Your task to perform on an android device: show emergency info Image 0: 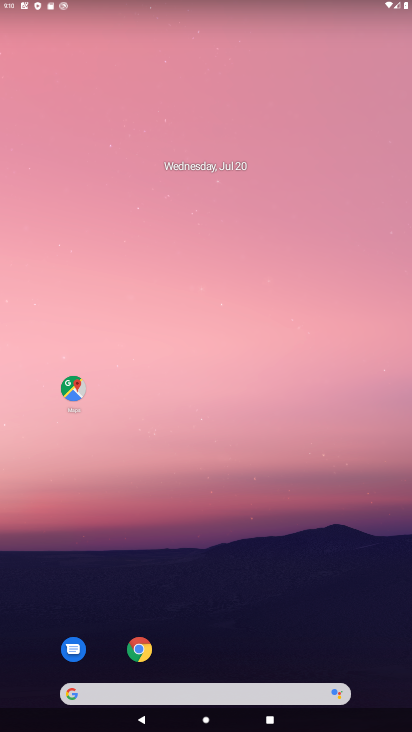
Step 0: drag from (257, 641) to (257, 88)
Your task to perform on an android device: show emergency info Image 1: 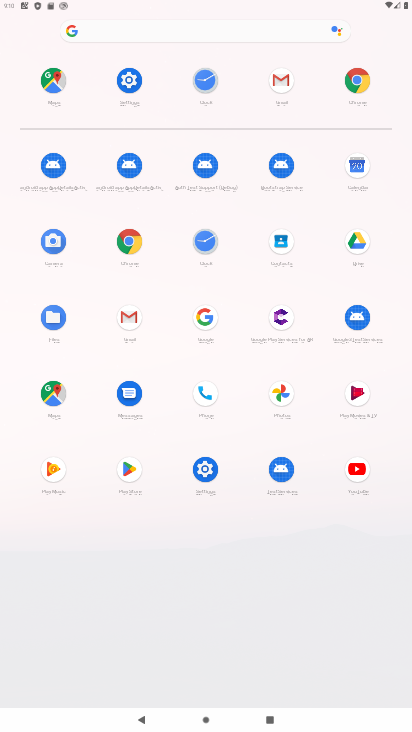
Step 1: click (134, 87)
Your task to perform on an android device: show emergency info Image 2: 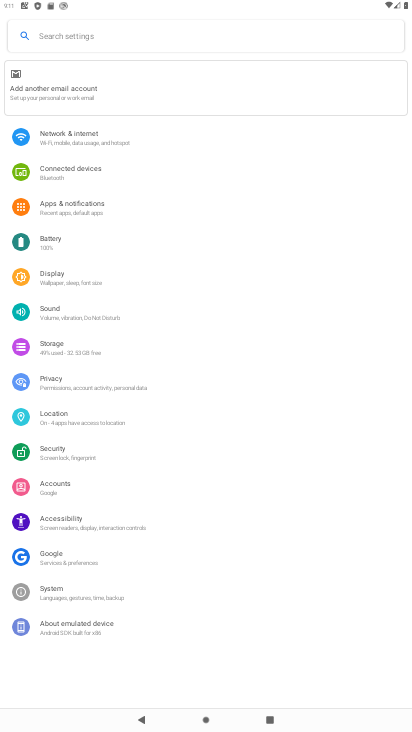
Step 2: click (98, 610)
Your task to perform on an android device: show emergency info Image 3: 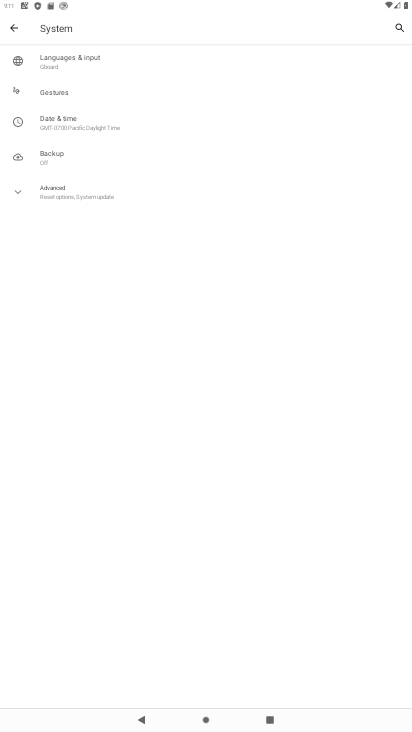
Step 3: task complete